Your task to perform on an android device: Open maps Image 0: 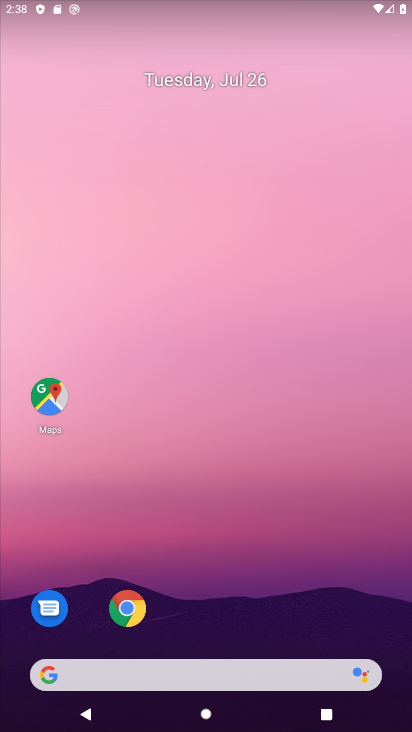
Step 0: type ""
Your task to perform on an android device: Open maps Image 1: 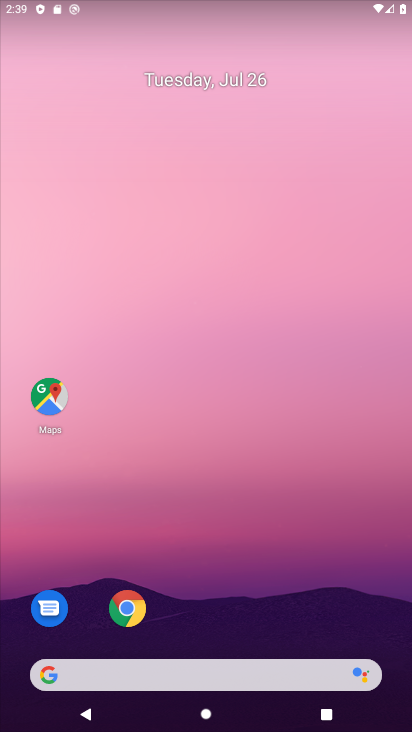
Step 1: click (48, 391)
Your task to perform on an android device: Open maps Image 2: 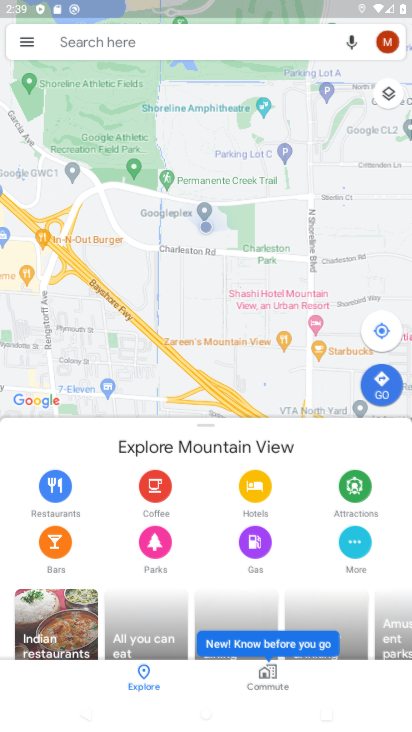
Step 2: task complete